Your task to perform on an android device: create a new album in the google photos Image 0: 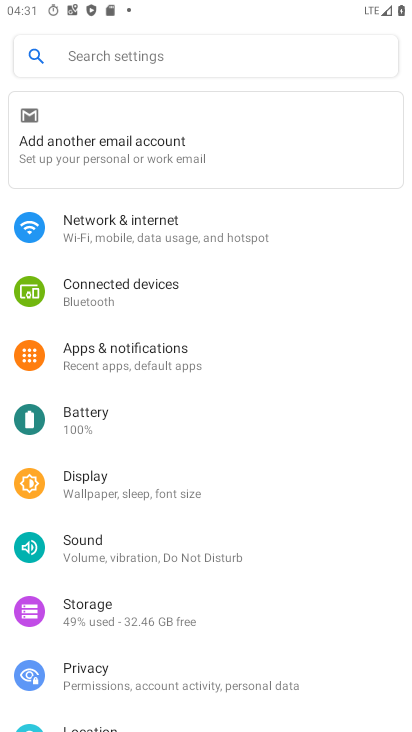
Step 0: press home button
Your task to perform on an android device: create a new album in the google photos Image 1: 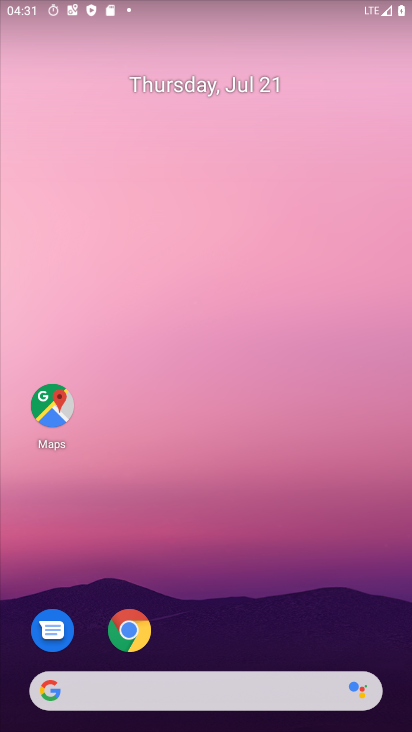
Step 1: click (188, 30)
Your task to perform on an android device: create a new album in the google photos Image 2: 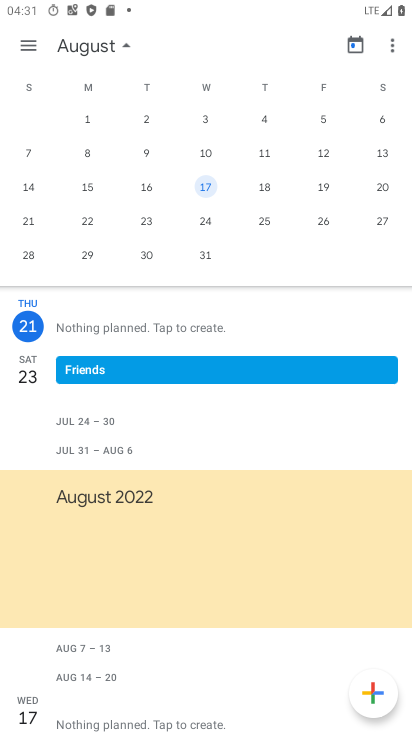
Step 2: drag from (228, 625) to (250, 134)
Your task to perform on an android device: create a new album in the google photos Image 3: 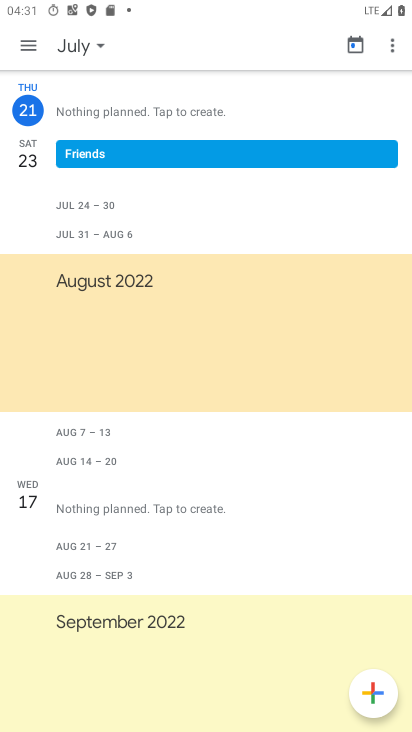
Step 3: press home button
Your task to perform on an android device: create a new album in the google photos Image 4: 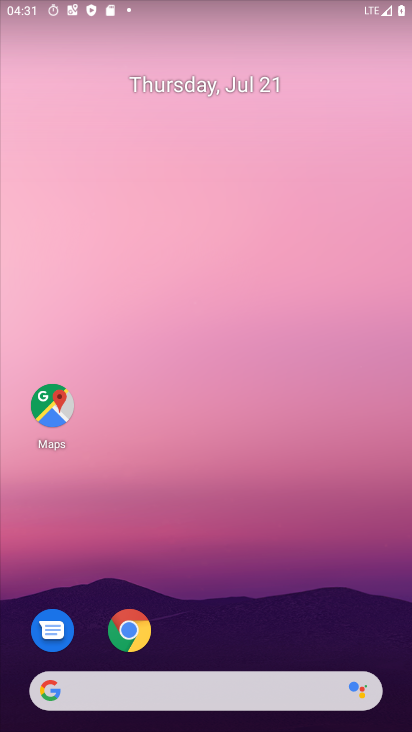
Step 4: drag from (216, 470) to (220, 131)
Your task to perform on an android device: create a new album in the google photos Image 5: 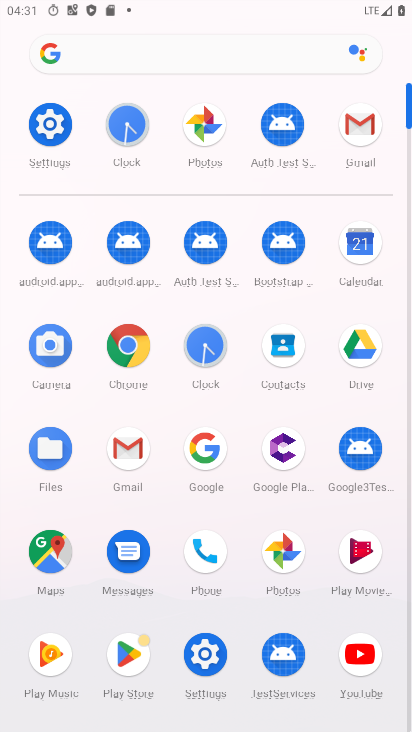
Step 5: click (196, 112)
Your task to perform on an android device: create a new album in the google photos Image 6: 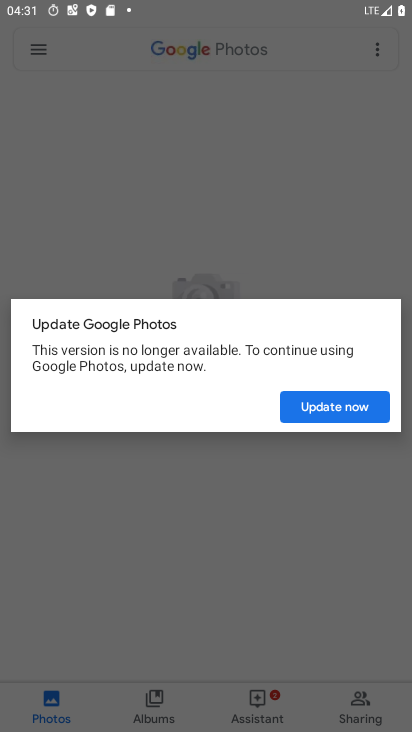
Step 6: click (357, 395)
Your task to perform on an android device: create a new album in the google photos Image 7: 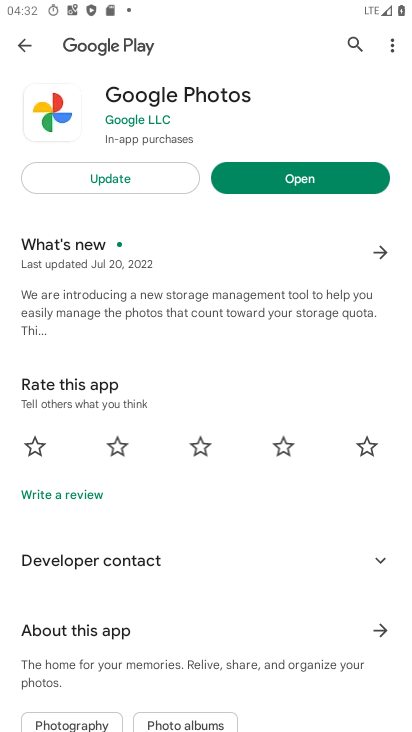
Step 7: click (259, 169)
Your task to perform on an android device: create a new album in the google photos Image 8: 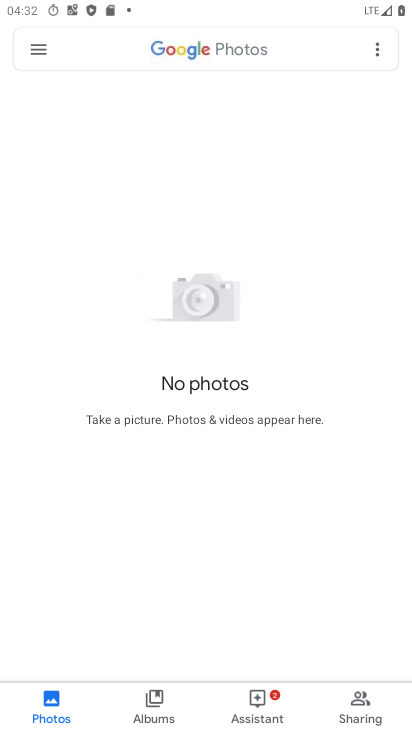
Step 8: task complete